Your task to perform on an android device: Turn off the flashlight Image 0: 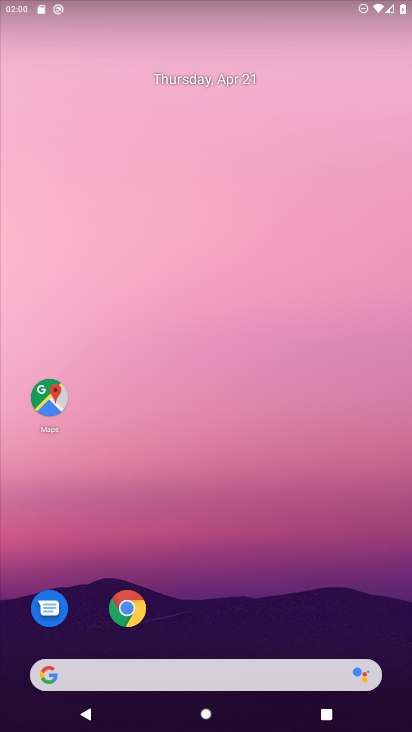
Step 0: drag from (216, 604) to (172, 167)
Your task to perform on an android device: Turn off the flashlight Image 1: 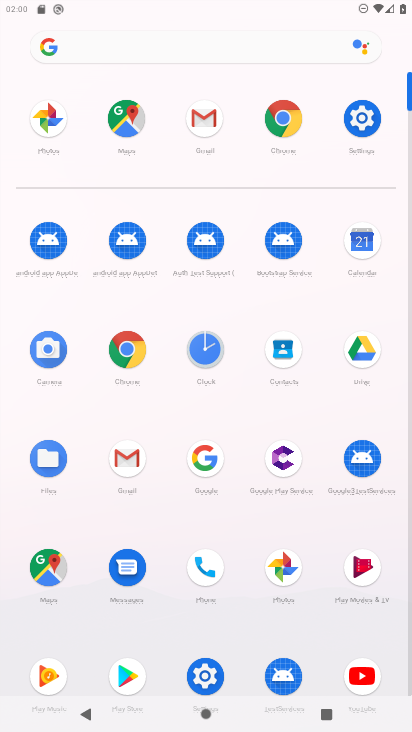
Step 1: click (363, 107)
Your task to perform on an android device: Turn off the flashlight Image 2: 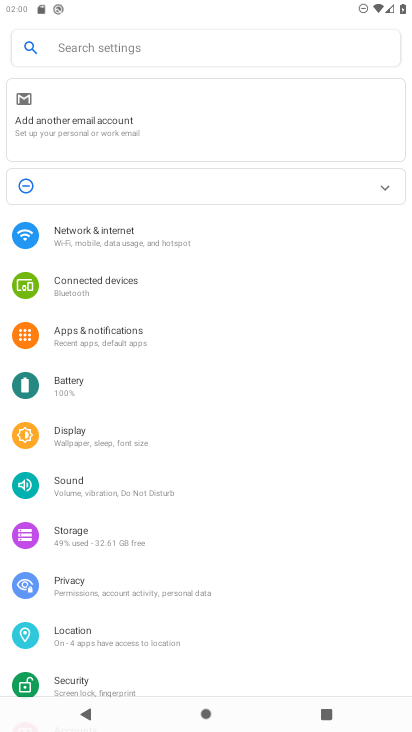
Step 2: task complete